Your task to perform on an android device: Go to calendar. Show me events next week Image 0: 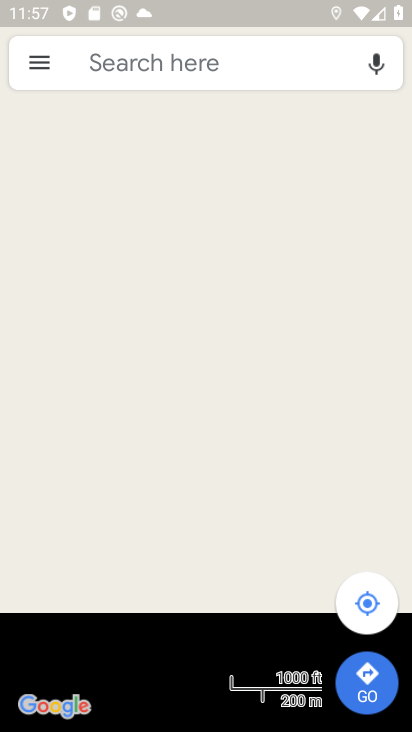
Step 0: click (330, 46)
Your task to perform on an android device: Go to calendar. Show me events next week Image 1: 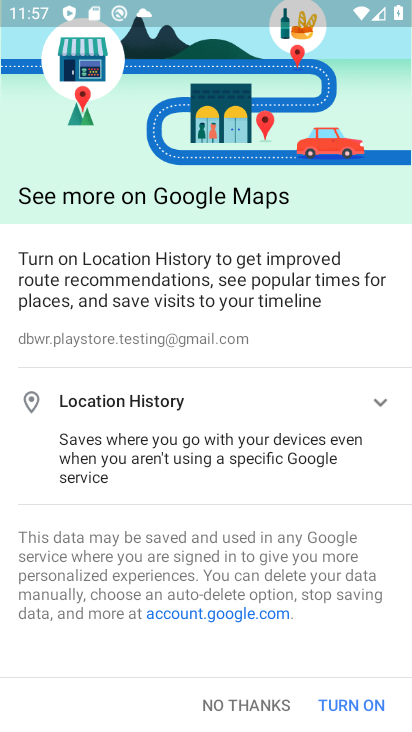
Step 1: click (365, 692)
Your task to perform on an android device: Go to calendar. Show me events next week Image 2: 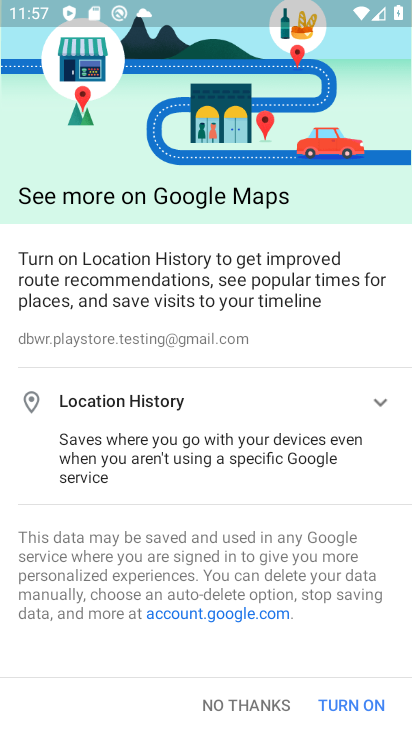
Step 2: press home button
Your task to perform on an android device: Go to calendar. Show me events next week Image 3: 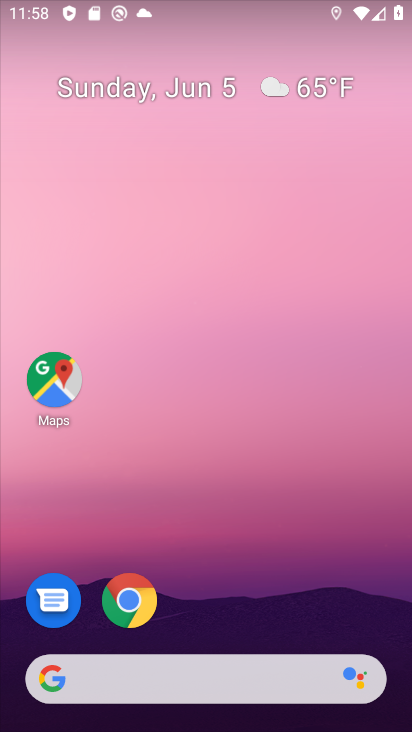
Step 3: drag from (392, 585) to (379, 127)
Your task to perform on an android device: Go to calendar. Show me events next week Image 4: 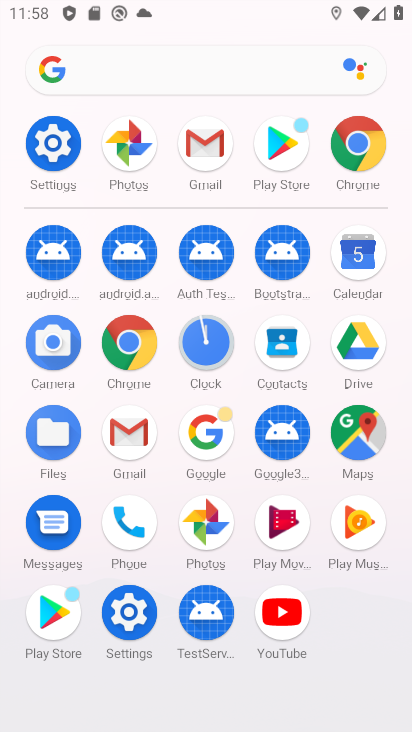
Step 4: click (360, 257)
Your task to perform on an android device: Go to calendar. Show me events next week Image 5: 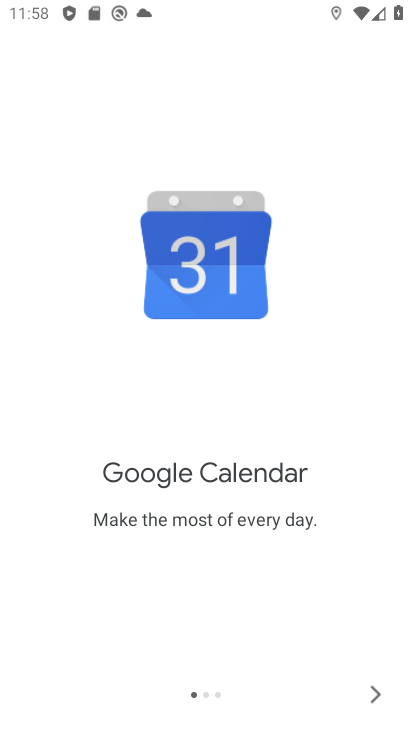
Step 5: click (378, 691)
Your task to perform on an android device: Go to calendar. Show me events next week Image 6: 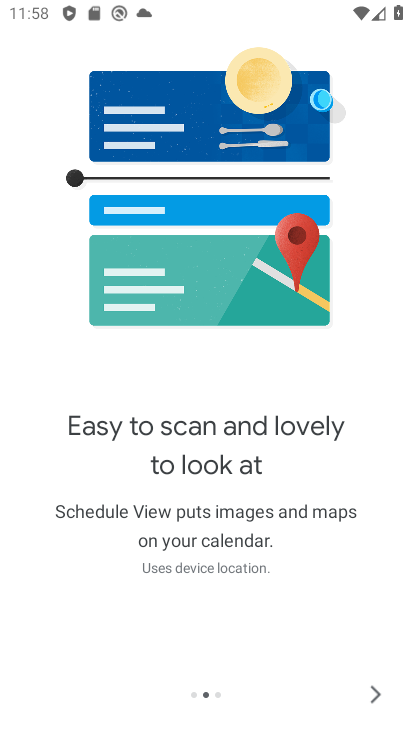
Step 6: click (378, 691)
Your task to perform on an android device: Go to calendar. Show me events next week Image 7: 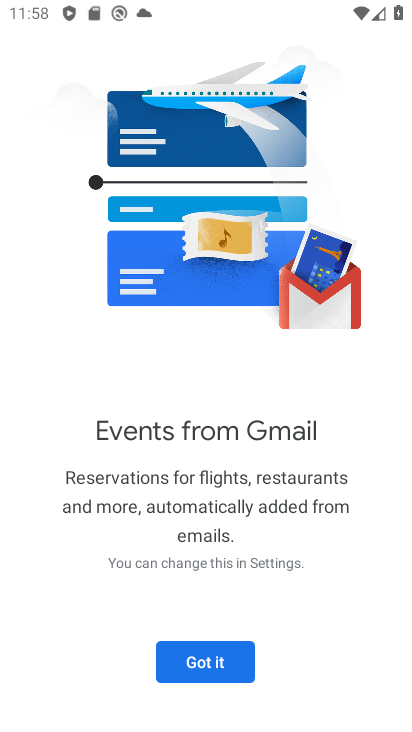
Step 7: click (195, 661)
Your task to perform on an android device: Go to calendar. Show me events next week Image 8: 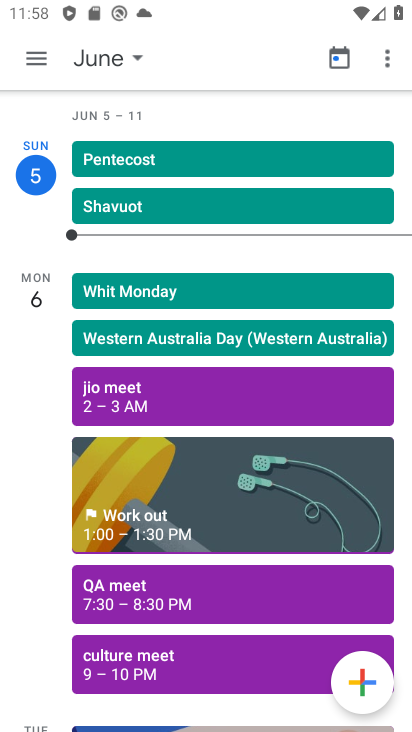
Step 8: click (130, 55)
Your task to perform on an android device: Go to calendar. Show me events next week Image 9: 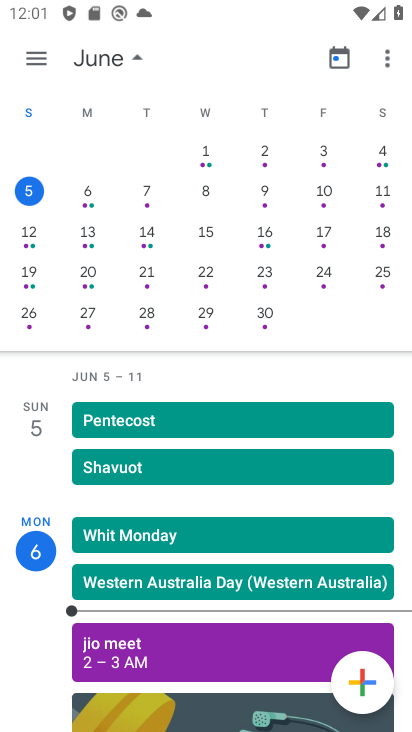
Step 9: click (84, 229)
Your task to perform on an android device: Go to calendar. Show me events next week Image 10: 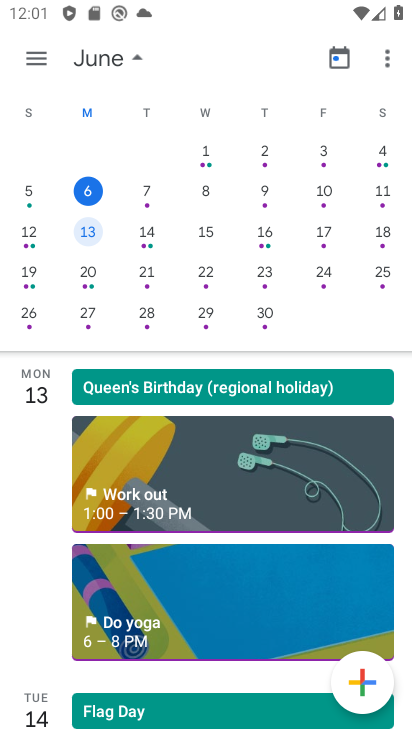
Step 10: click (37, 55)
Your task to perform on an android device: Go to calendar. Show me events next week Image 11: 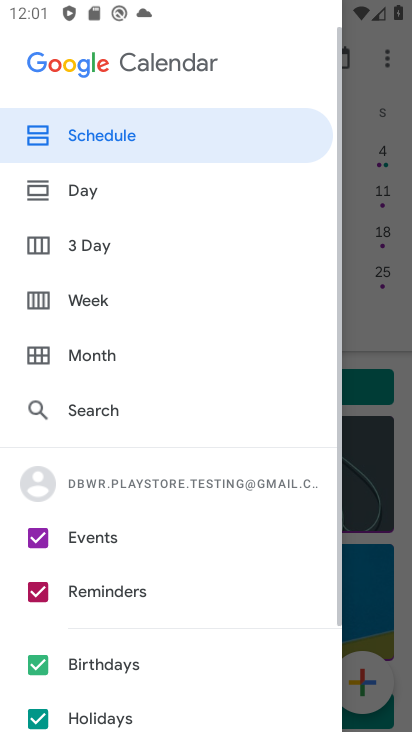
Step 11: click (85, 292)
Your task to perform on an android device: Go to calendar. Show me events next week Image 12: 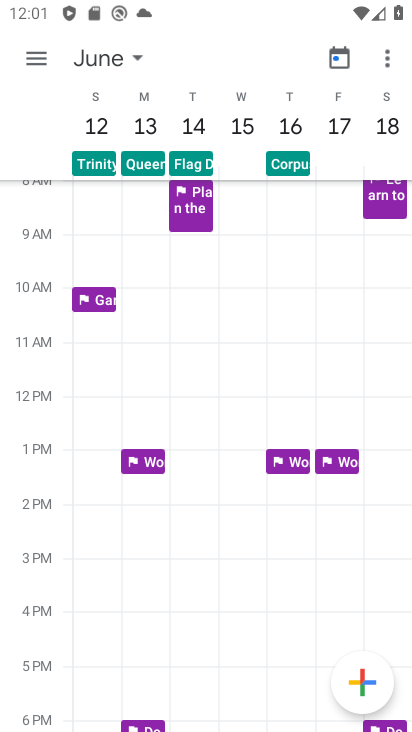
Step 12: task complete